Your task to perform on an android device: turn off translation in the chrome app Image 0: 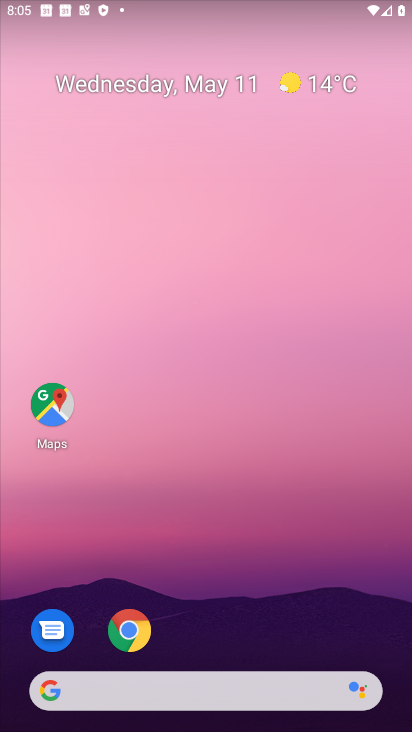
Step 0: click (137, 625)
Your task to perform on an android device: turn off translation in the chrome app Image 1: 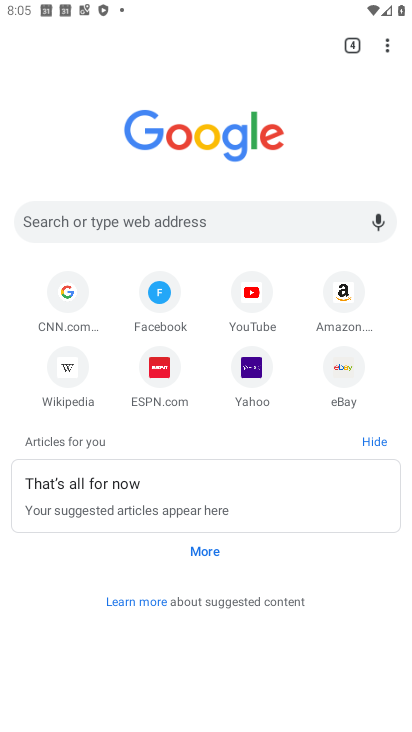
Step 1: click (384, 52)
Your task to perform on an android device: turn off translation in the chrome app Image 2: 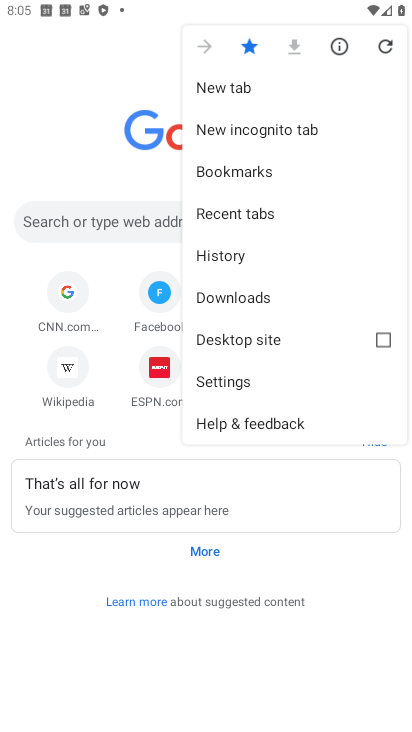
Step 2: click (223, 378)
Your task to perform on an android device: turn off translation in the chrome app Image 3: 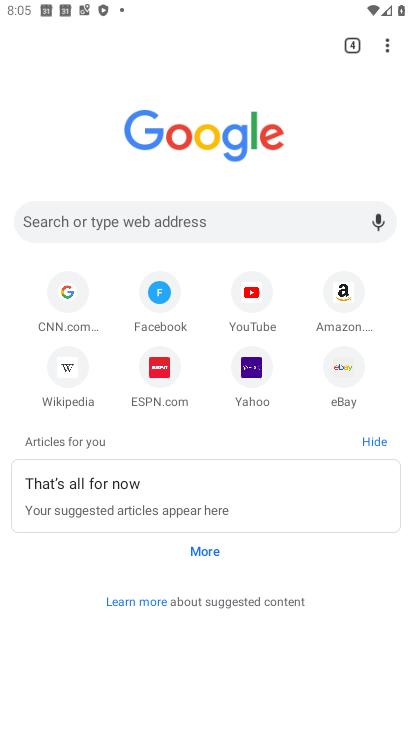
Step 3: click (223, 378)
Your task to perform on an android device: turn off translation in the chrome app Image 4: 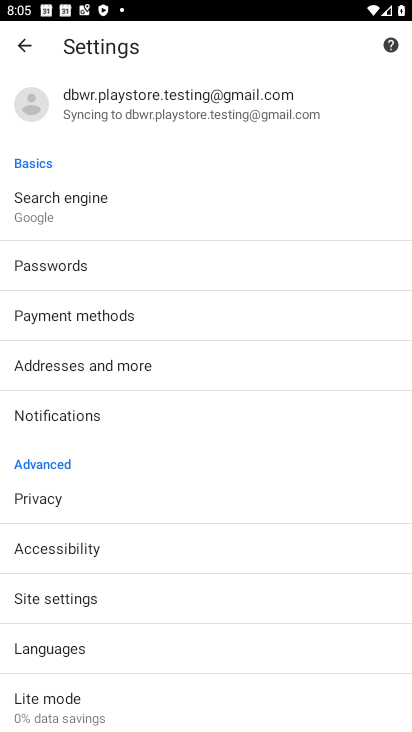
Step 4: click (56, 645)
Your task to perform on an android device: turn off translation in the chrome app Image 5: 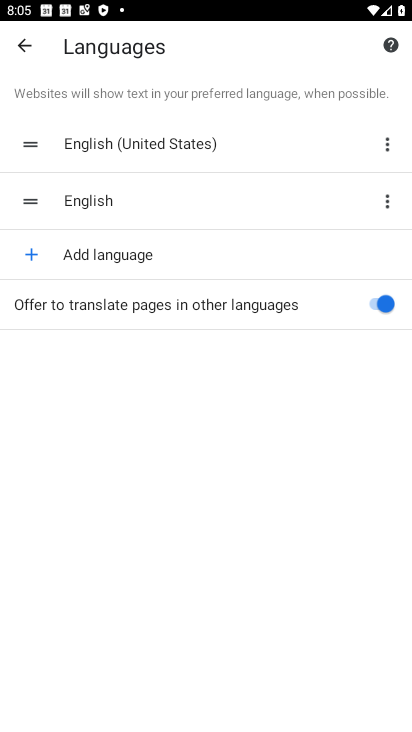
Step 5: click (368, 300)
Your task to perform on an android device: turn off translation in the chrome app Image 6: 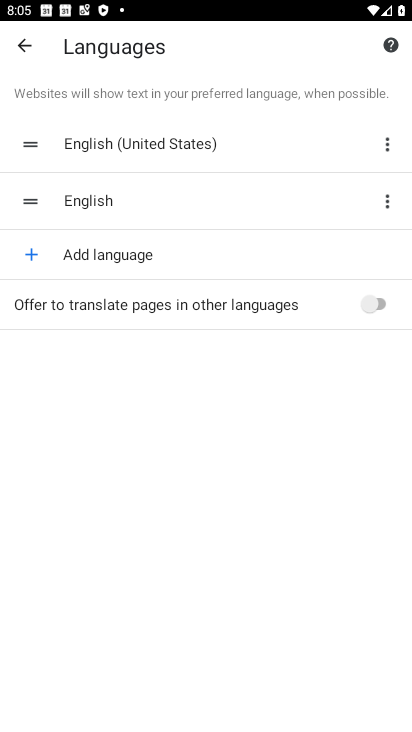
Step 6: task complete